Your task to perform on an android device: change the clock display to digital Image 0: 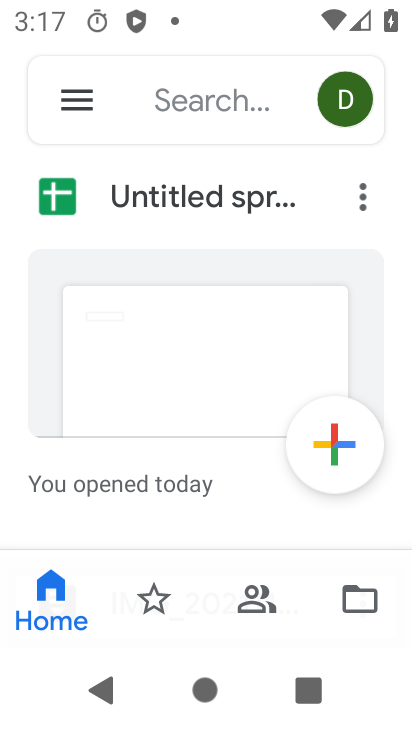
Step 0: press home button
Your task to perform on an android device: change the clock display to digital Image 1: 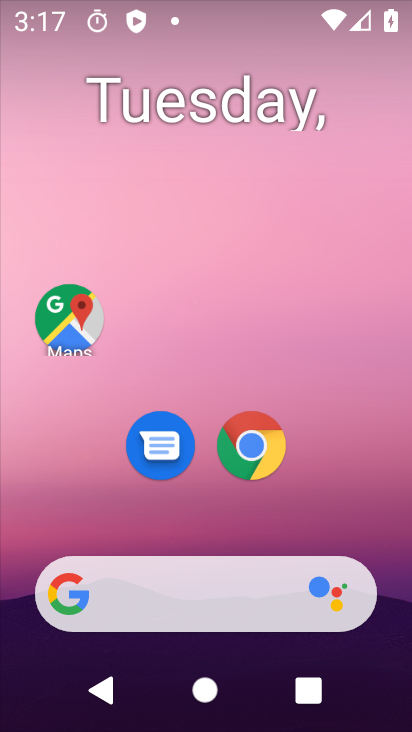
Step 1: drag from (227, 543) to (147, 3)
Your task to perform on an android device: change the clock display to digital Image 2: 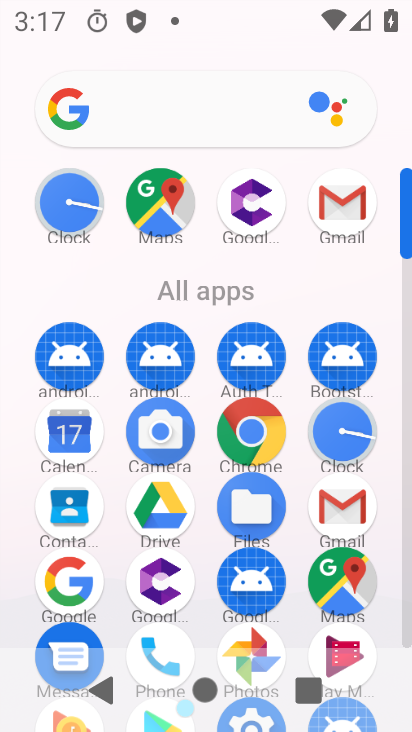
Step 2: click (336, 447)
Your task to perform on an android device: change the clock display to digital Image 3: 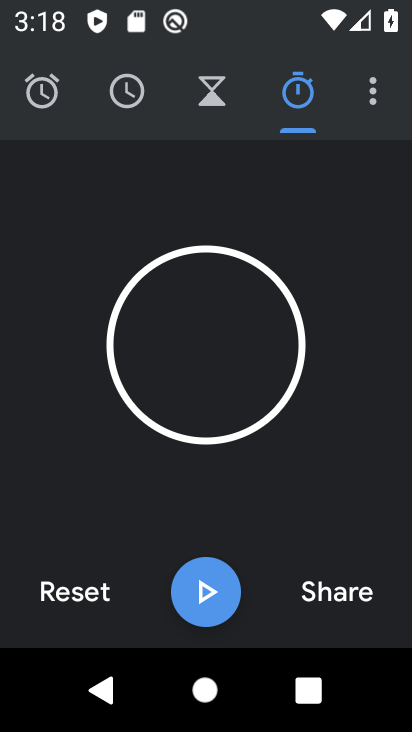
Step 3: click (366, 92)
Your task to perform on an android device: change the clock display to digital Image 4: 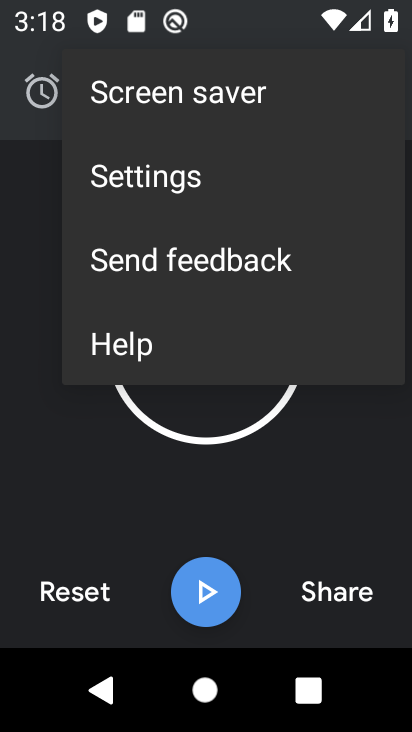
Step 4: click (184, 186)
Your task to perform on an android device: change the clock display to digital Image 5: 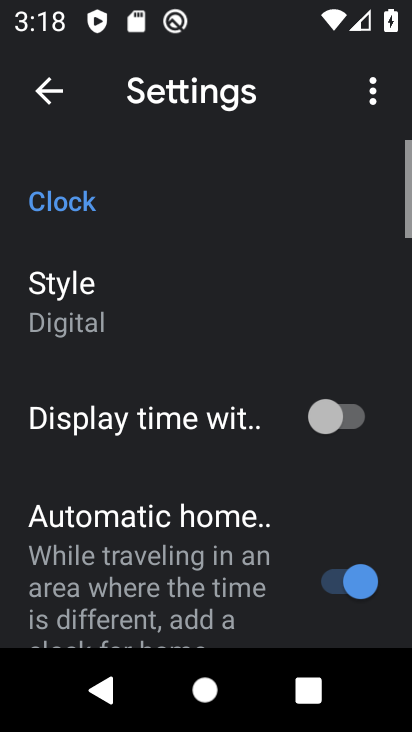
Step 5: click (119, 274)
Your task to perform on an android device: change the clock display to digital Image 6: 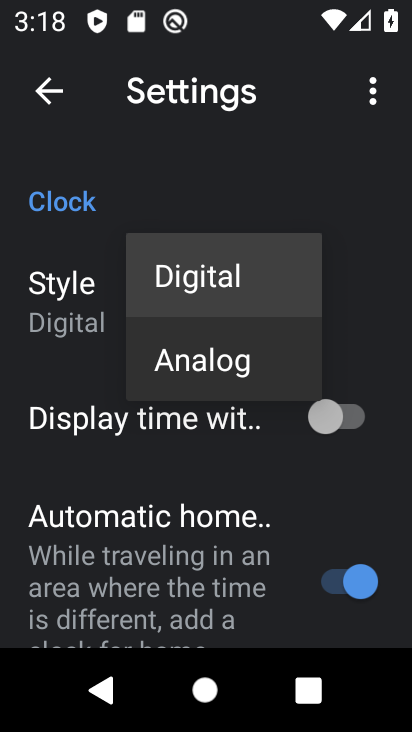
Step 6: click (184, 267)
Your task to perform on an android device: change the clock display to digital Image 7: 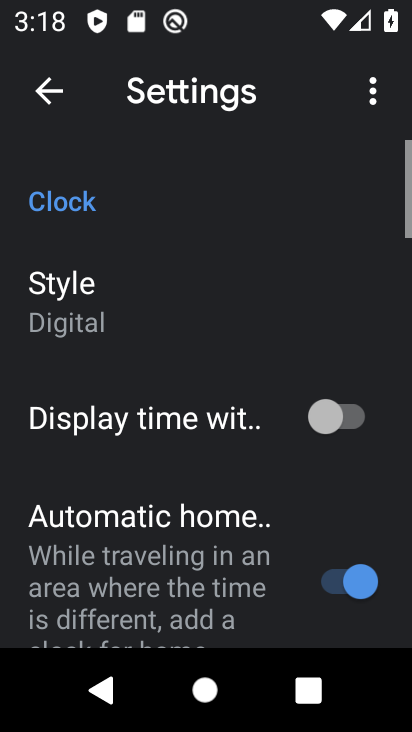
Step 7: task complete